Your task to perform on an android device: visit the assistant section in the google photos Image 0: 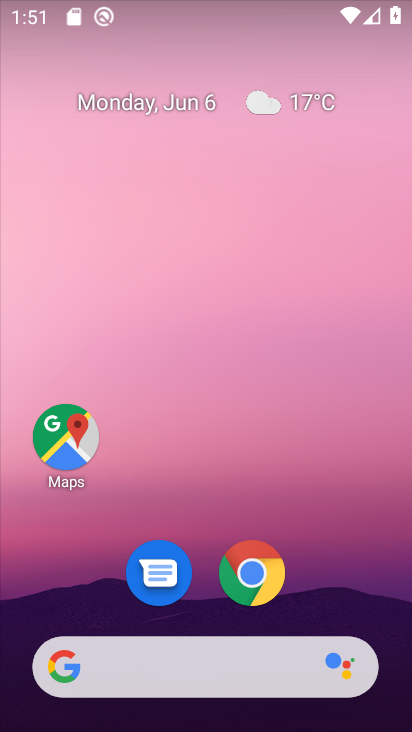
Step 0: drag from (399, 625) to (269, 106)
Your task to perform on an android device: visit the assistant section in the google photos Image 1: 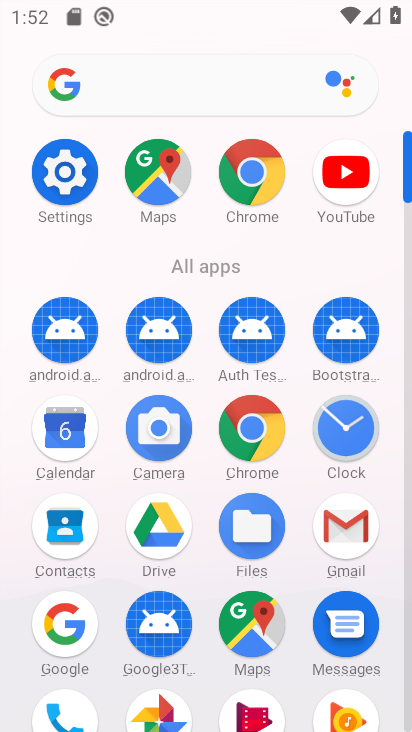
Step 1: click (171, 709)
Your task to perform on an android device: visit the assistant section in the google photos Image 2: 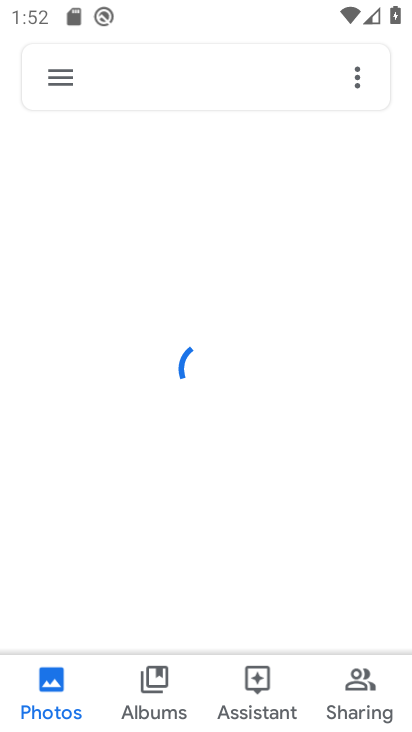
Step 2: click (264, 678)
Your task to perform on an android device: visit the assistant section in the google photos Image 3: 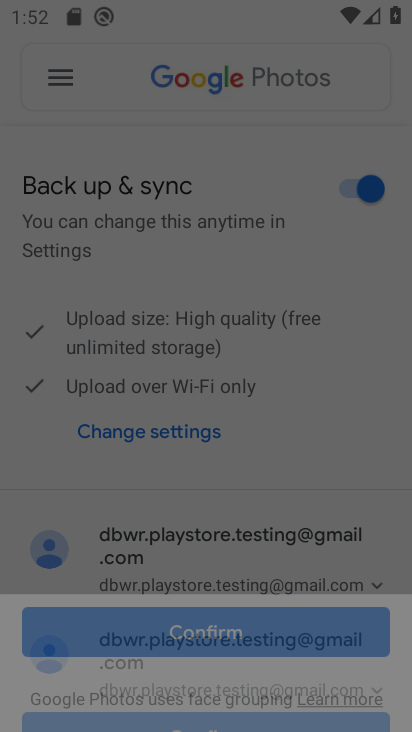
Step 3: click (181, 618)
Your task to perform on an android device: visit the assistant section in the google photos Image 4: 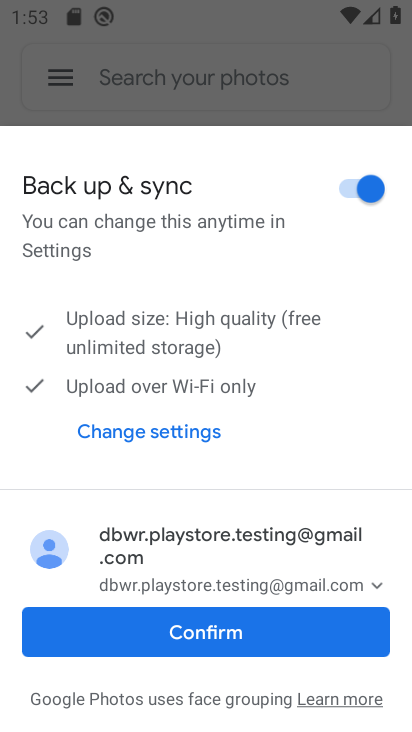
Step 4: click (190, 620)
Your task to perform on an android device: visit the assistant section in the google photos Image 5: 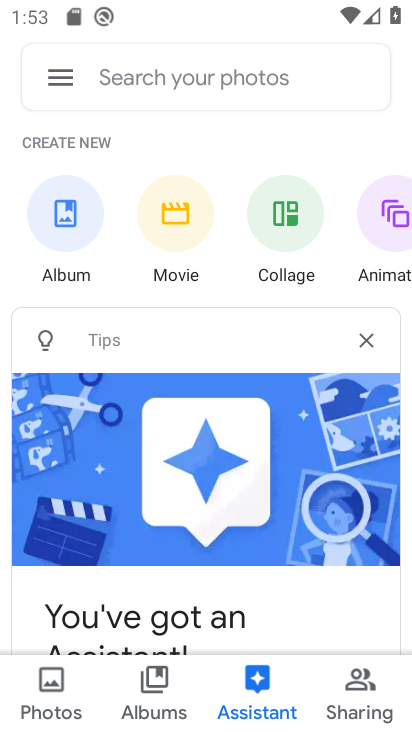
Step 5: click (256, 699)
Your task to perform on an android device: visit the assistant section in the google photos Image 6: 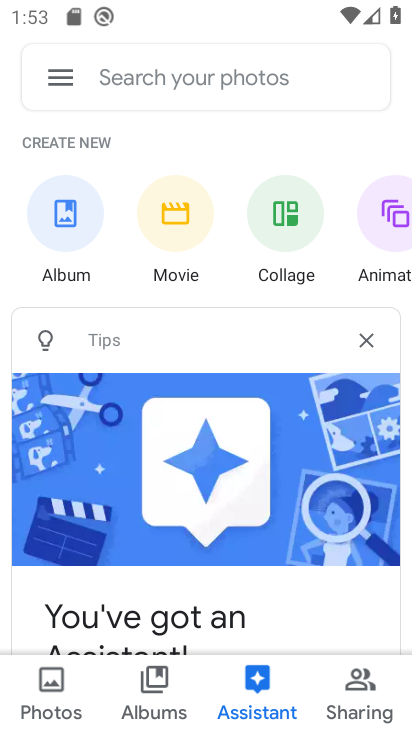
Step 6: task complete